Your task to perform on an android device: Go to Reddit.com Image 0: 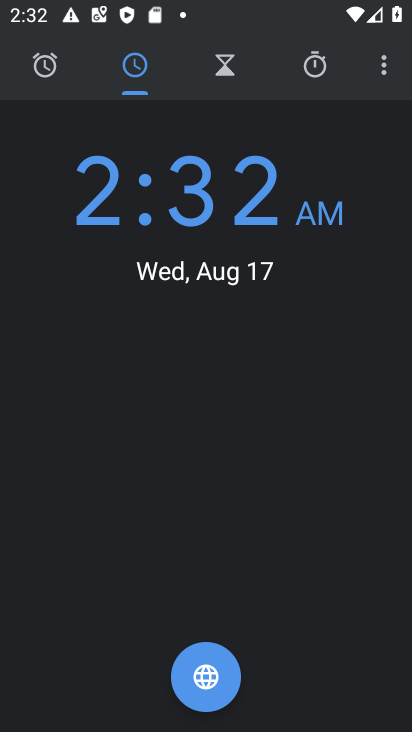
Step 0: press home button
Your task to perform on an android device: Go to Reddit.com Image 1: 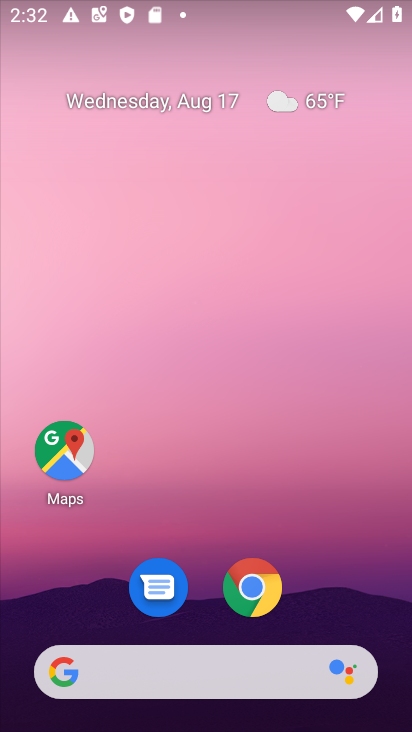
Step 1: click (242, 591)
Your task to perform on an android device: Go to Reddit.com Image 2: 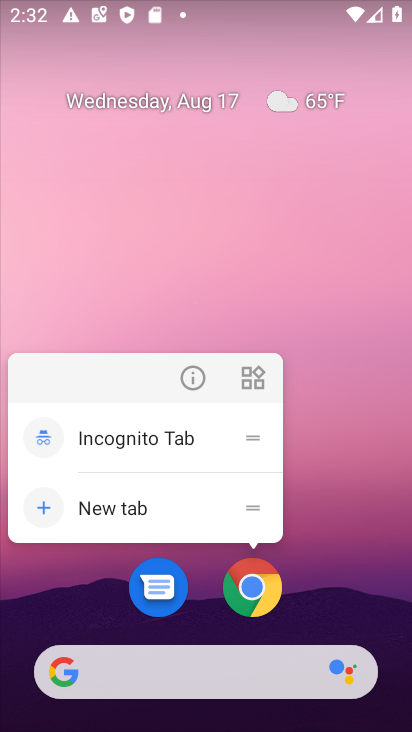
Step 2: click (96, 512)
Your task to perform on an android device: Go to Reddit.com Image 3: 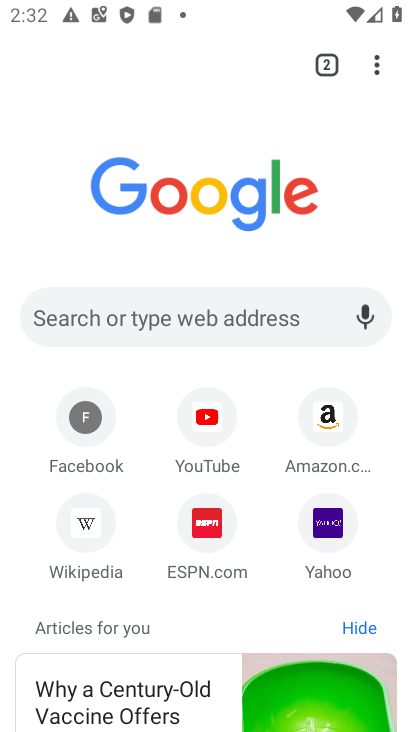
Step 3: click (202, 313)
Your task to perform on an android device: Go to Reddit.com Image 4: 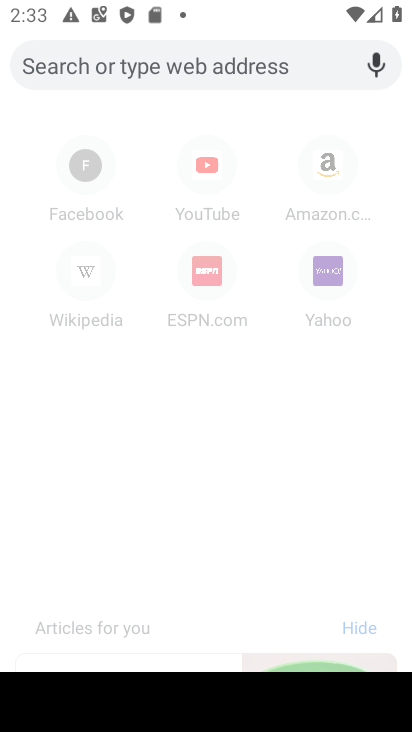
Step 4: type "Reddit.com"
Your task to perform on an android device: Go to Reddit.com Image 5: 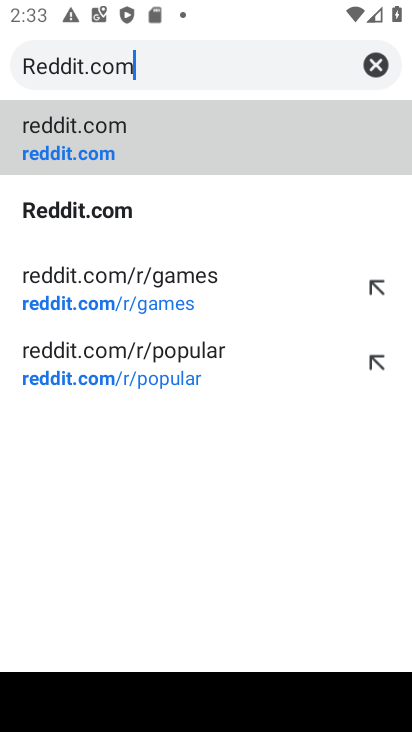
Step 5: type ""
Your task to perform on an android device: Go to Reddit.com Image 6: 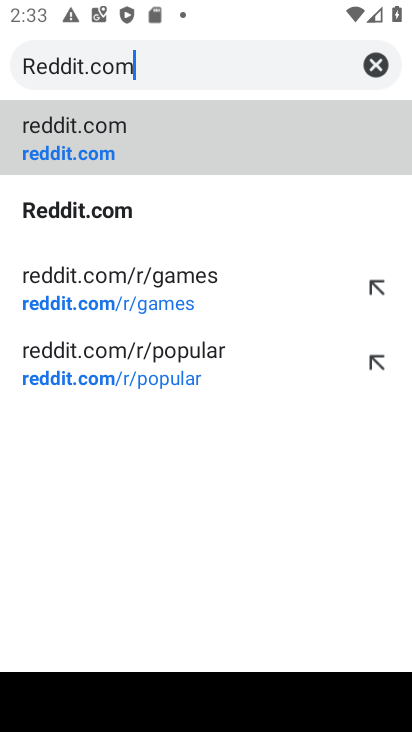
Step 6: click (92, 137)
Your task to perform on an android device: Go to Reddit.com Image 7: 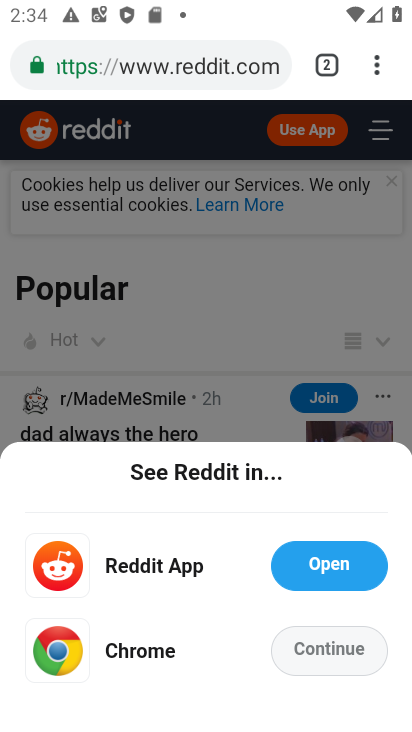
Step 7: task complete